Your task to perform on an android device: find snoozed emails in the gmail app Image 0: 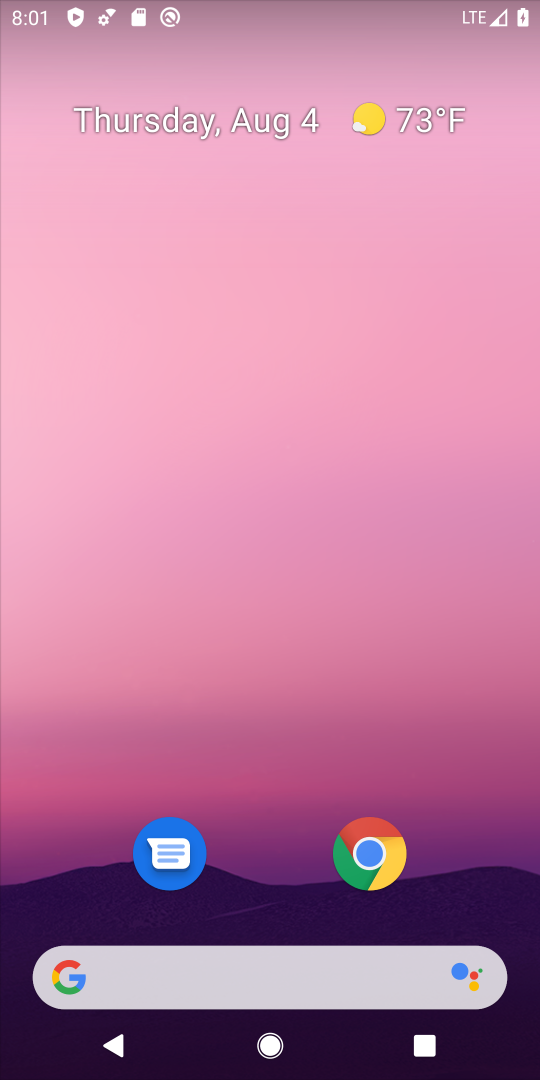
Step 0: drag from (318, 809) to (173, 51)
Your task to perform on an android device: find snoozed emails in the gmail app Image 1: 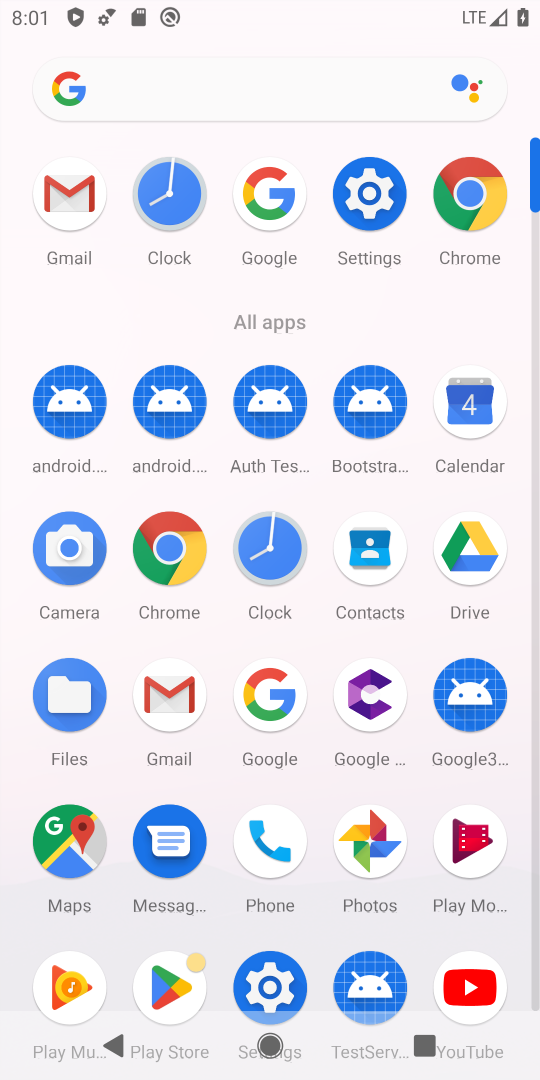
Step 1: click (58, 196)
Your task to perform on an android device: find snoozed emails in the gmail app Image 2: 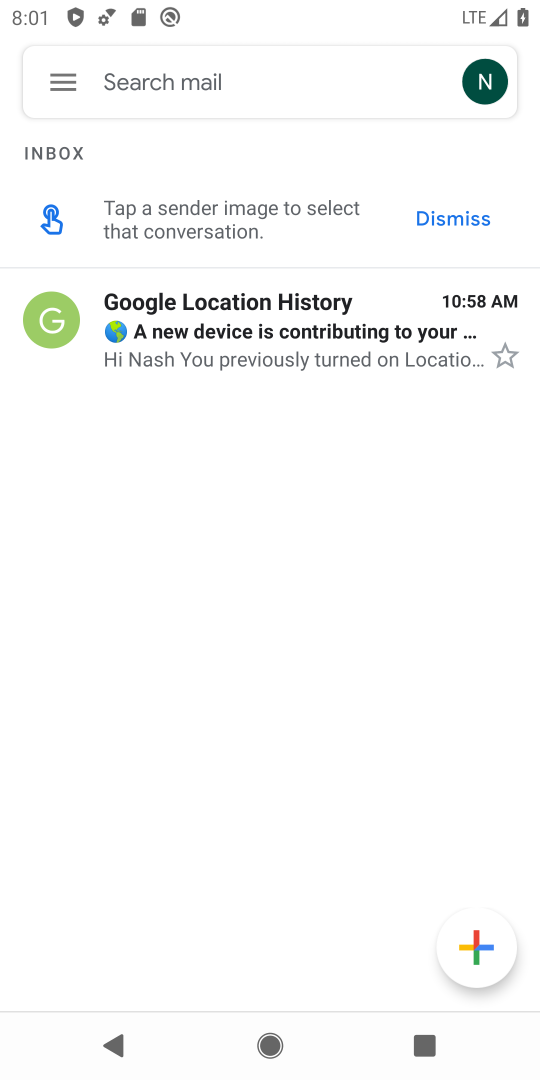
Step 2: click (56, 76)
Your task to perform on an android device: find snoozed emails in the gmail app Image 3: 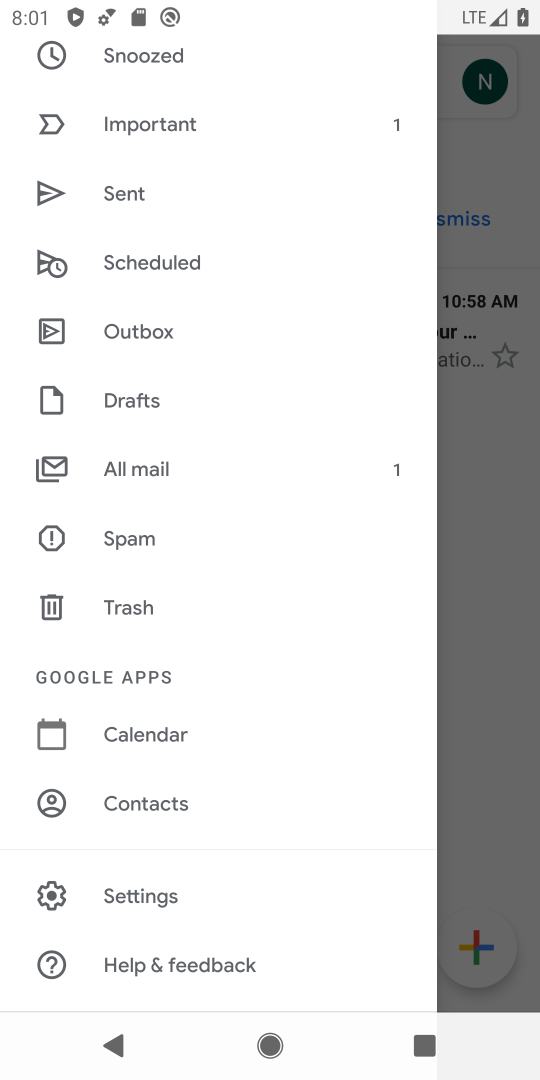
Step 3: click (169, 57)
Your task to perform on an android device: find snoozed emails in the gmail app Image 4: 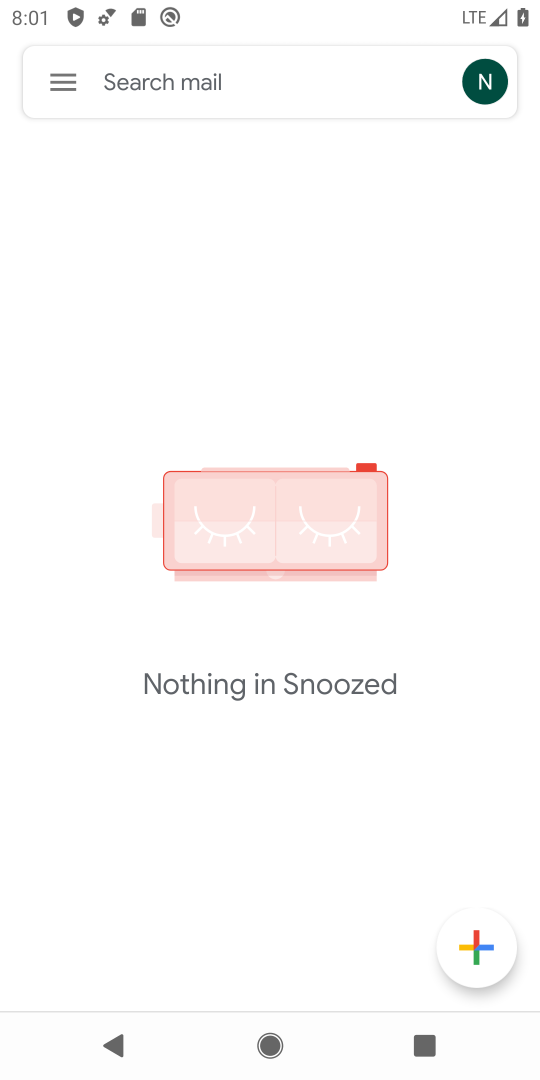
Step 4: task complete